Your task to perform on an android device: toggle notification dots Image 0: 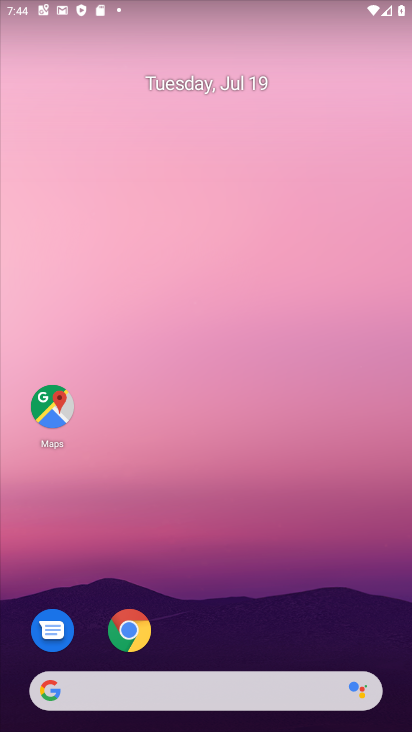
Step 0: drag from (308, 612) to (281, 182)
Your task to perform on an android device: toggle notification dots Image 1: 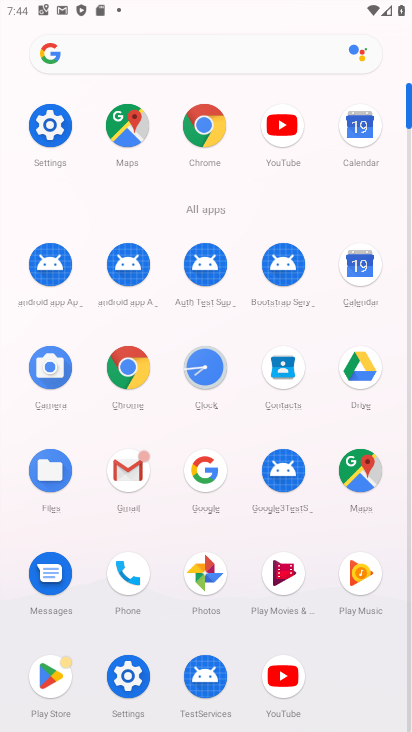
Step 1: click (50, 132)
Your task to perform on an android device: toggle notification dots Image 2: 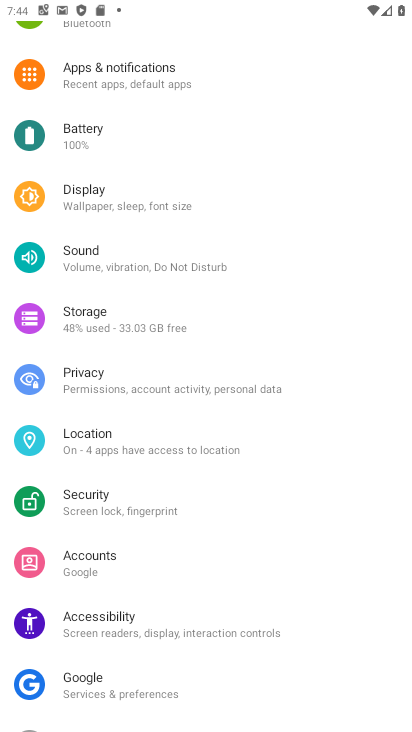
Step 2: click (141, 76)
Your task to perform on an android device: toggle notification dots Image 3: 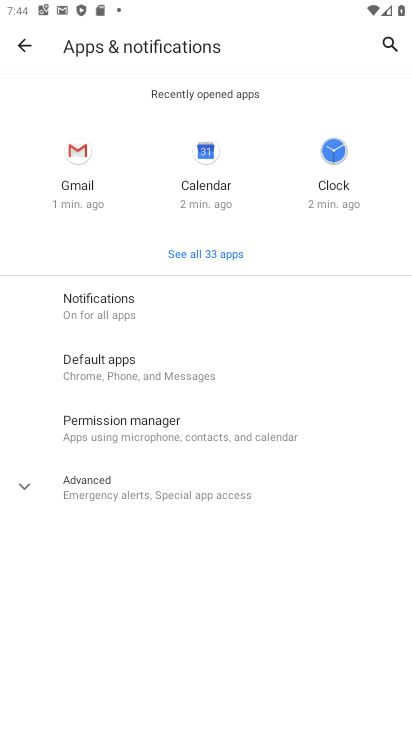
Step 3: click (144, 299)
Your task to perform on an android device: toggle notification dots Image 4: 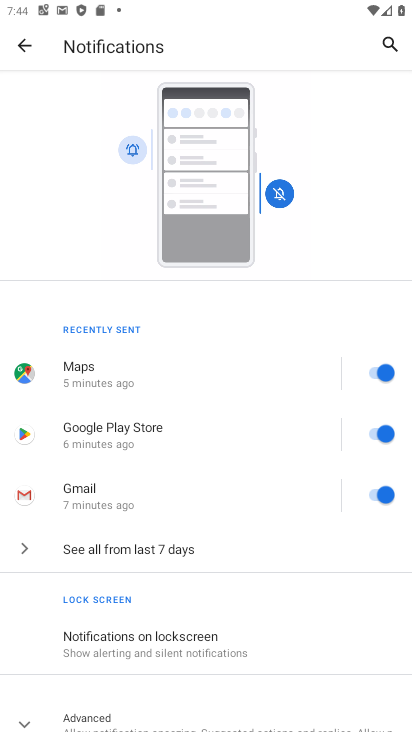
Step 4: drag from (252, 694) to (247, 267)
Your task to perform on an android device: toggle notification dots Image 5: 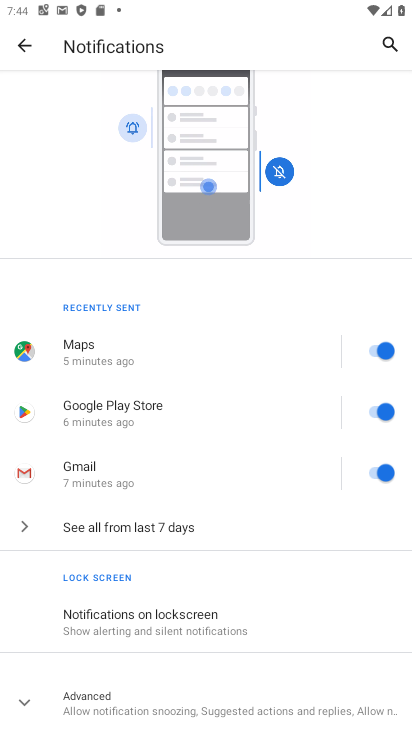
Step 5: click (143, 700)
Your task to perform on an android device: toggle notification dots Image 6: 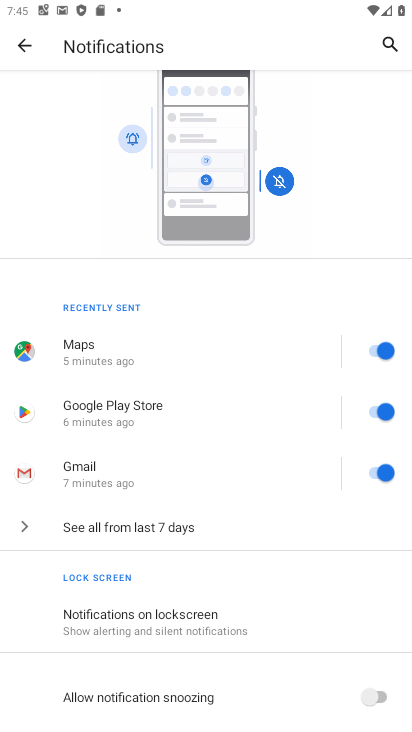
Step 6: drag from (158, 674) to (168, 271)
Your task to perform on an android device: toggle notification dots Image 7: 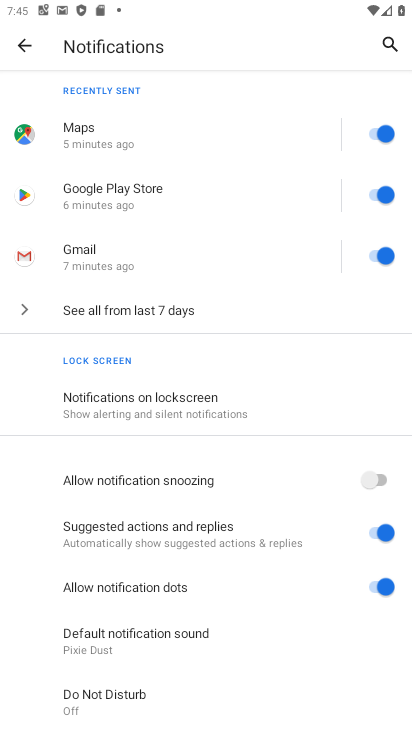
Step 7: click (384, 582)
Your task to perform on an android device: toggle notification dots Image 8: 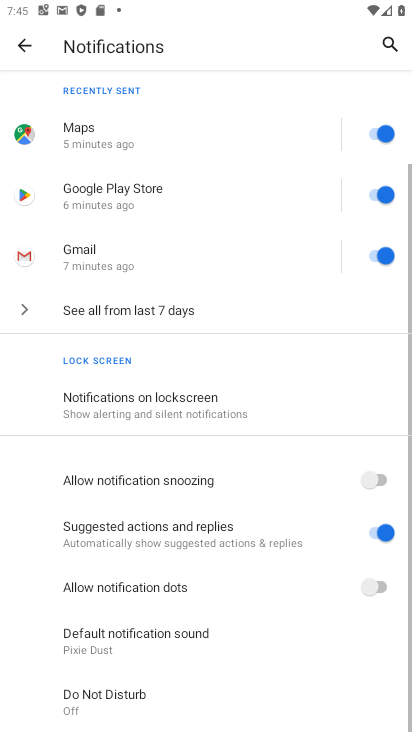
Step 8: task complete